Your task to perform on an android device: read, delete, or share a saved page in the chrome app Image 0: 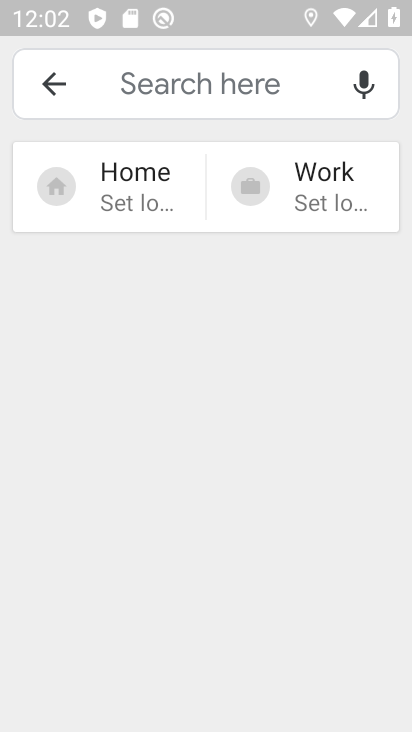
Step 0: drag from (385, 623) to (376, 247)
Your task to perform on an android device: read, delete, or share a saved page in the chrome app Image 1: 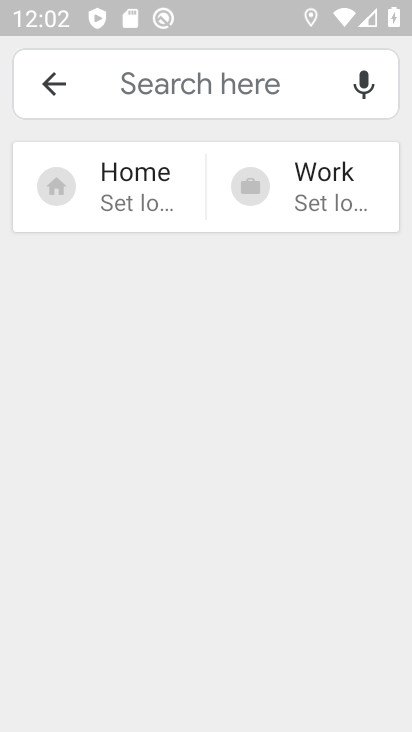
Step 1: press home button
Your task to perform on an android device: read, delete, or share a saved page in the chrome app Image 2: 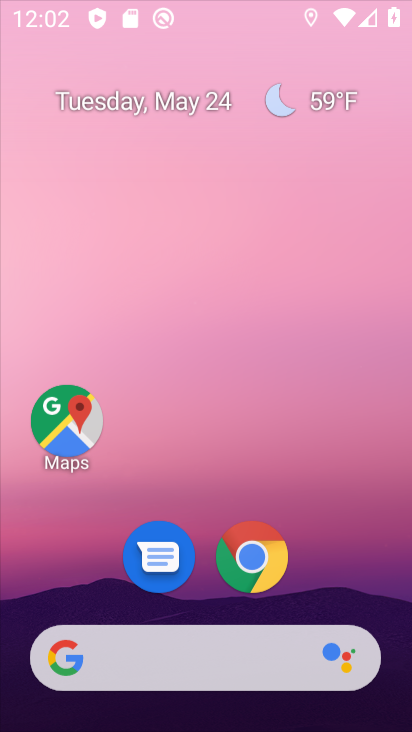
Step 2: drag from (379, 679) to (286, 90)
Your task to perform on an android device: read, delete, or share a saved page in the chrome app Image 3: 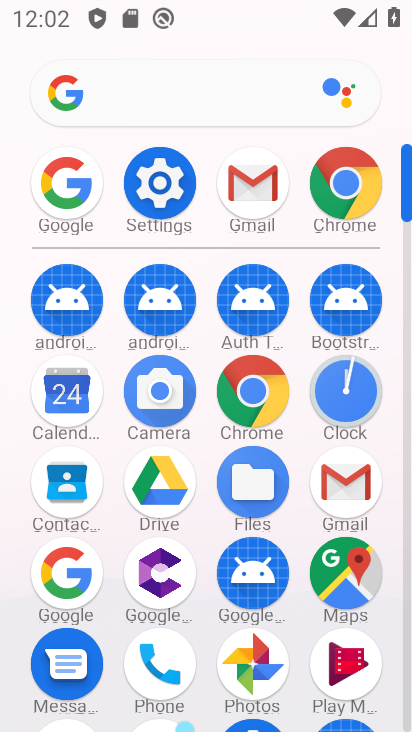
Step 3: click (270, 386)
Your task to perform on an android device: read, delete, or share a saved page in the chrome app Image 4: 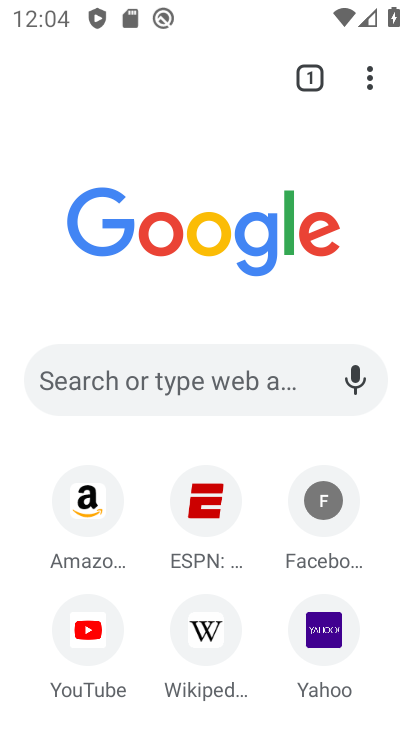
Step 4: task complete